Your task to perform on an android device: When is my next meeting? Image 0: 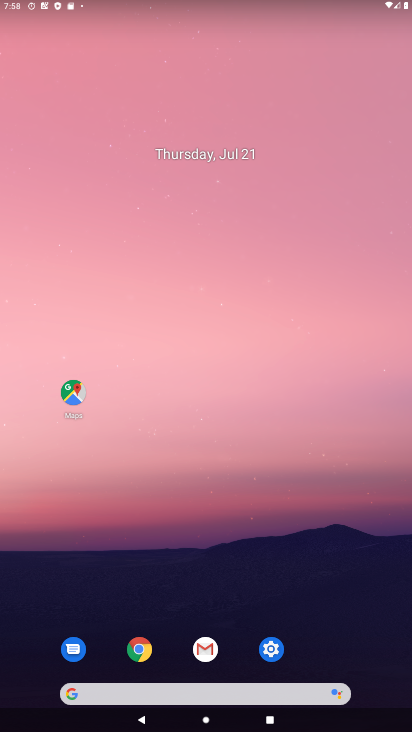
Step 0: drag from (222, 709) to (246, 226)
Your task to perform on an android device: When is my next meeting? Image 1: 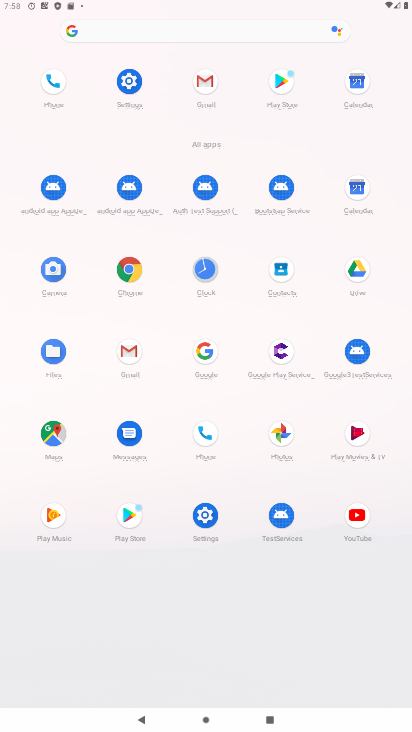
Step 1: click (349, 191)
Your task to perform on an android device: When is my next meeting? Image 2: 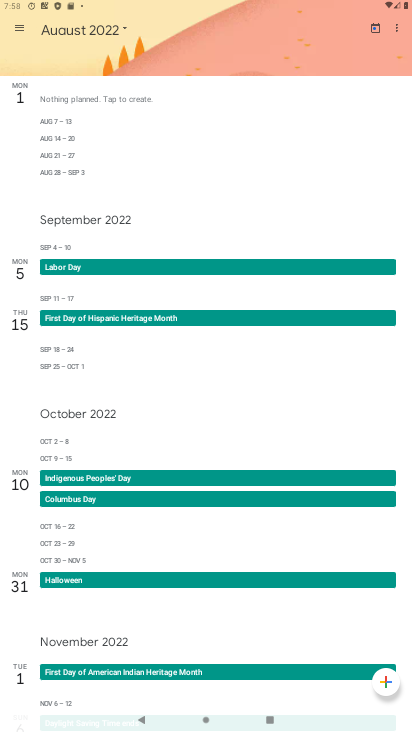
Step 2: click (26, 29)
Your task to perform on an android device: When is my next meeting? Image 3: 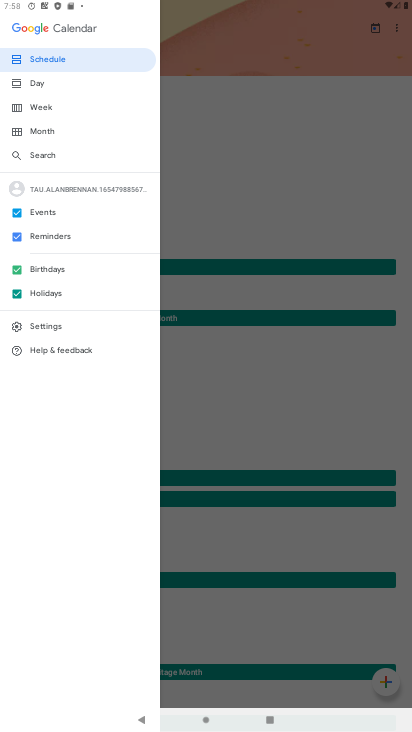
Step 3: click (55, 136)
Your task to perform on an android device: When is my next meeting? Image 4: 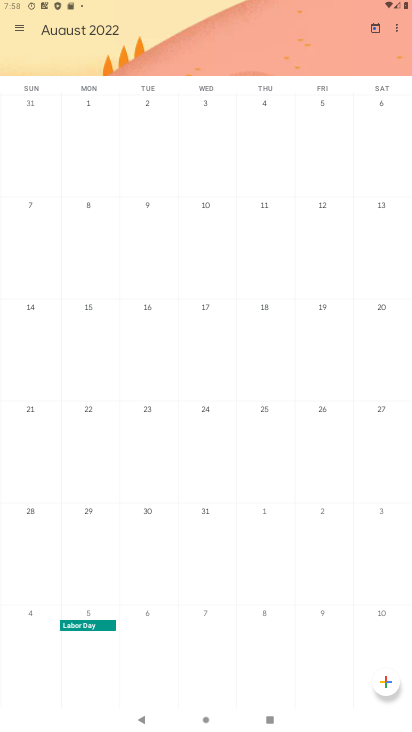
Step 4: drag from (51, 423) to (403, 263)
Your task to perform on an android device: When is my next meeting? Image 5: 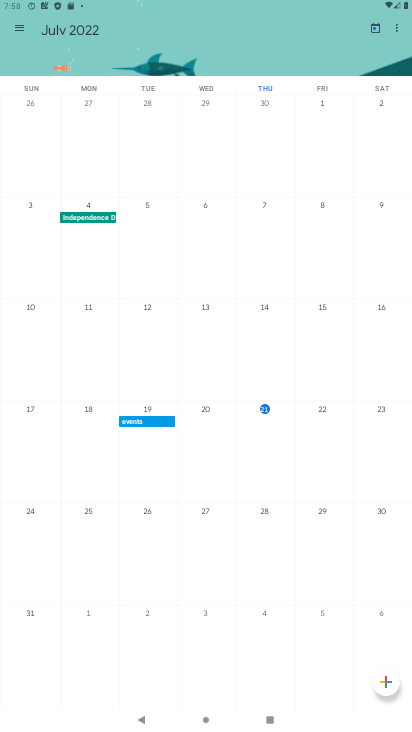
Step 5: click (269, 425)
Your task to perform on an android device: When is my next meeting? Image 6: 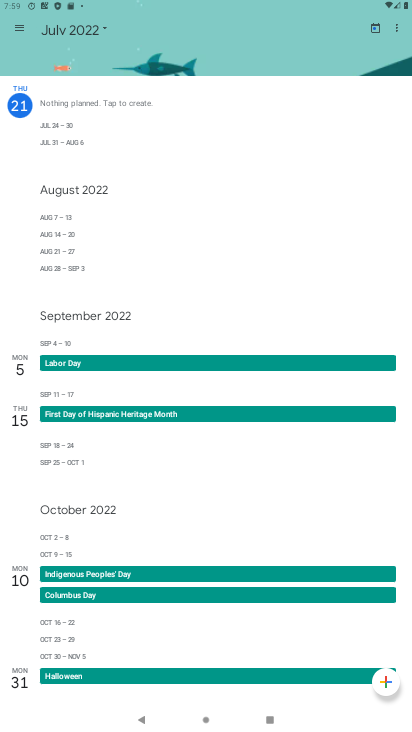
Step 6: task complete